Your task to perform on an android device: Go to Reddit.com Image 0: 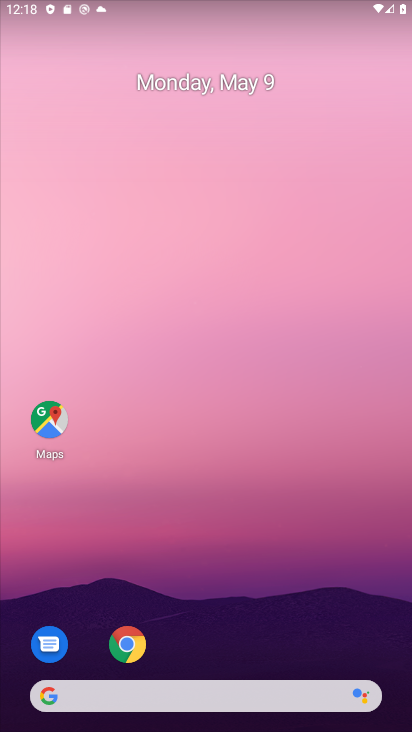
Step 0: click (139, 639)
Your task to perform on an android device: Go to Reddit.com Image 1: 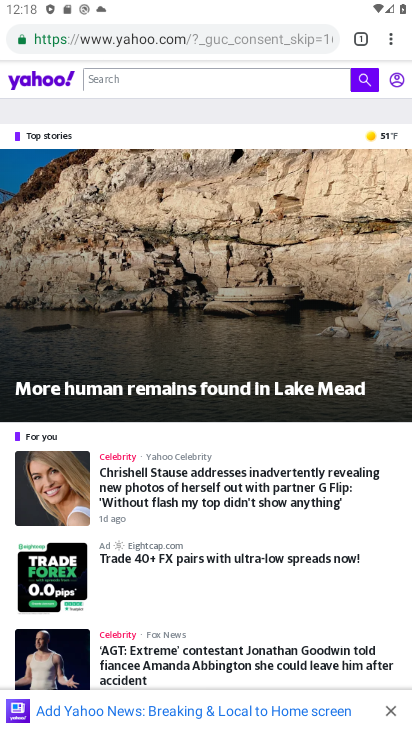
Step 1: click (237, 38)
Your task to perform on an android device: Go to Reddit.com Image 2: 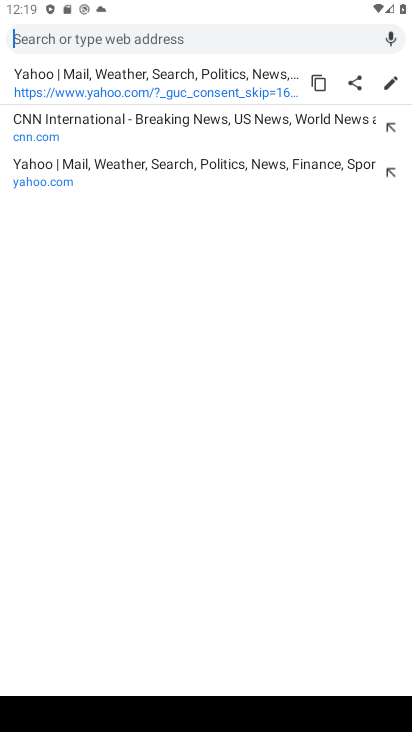
Step 2: type "reddit.com"
Your task to perform on an android device: Go to Reddit.com Image 3: 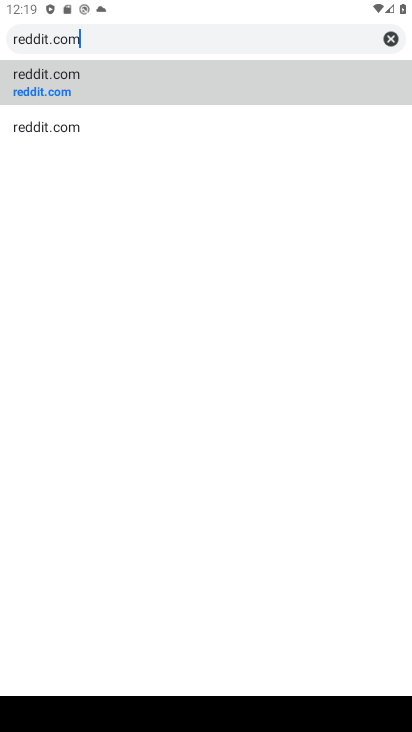
Step 3: click (86, 99)
Your task to perform on an android device: Go to Reddit.com Image 4: 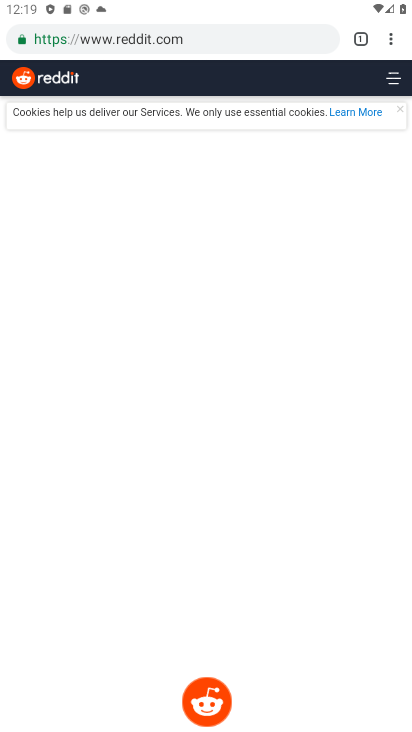
Step 4: task complete